Your task to perform on an android device: refresh tabs in the chrome app Image 0: 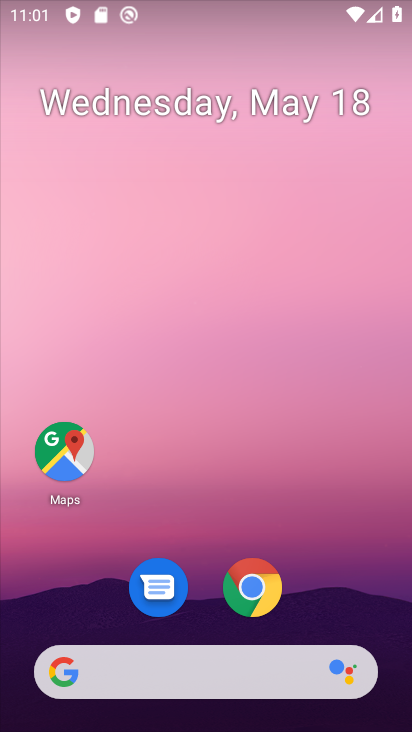
Step 0: click (256, 584)
Your task to perform on an android device: refresh tabs in the chrome app Image 1: 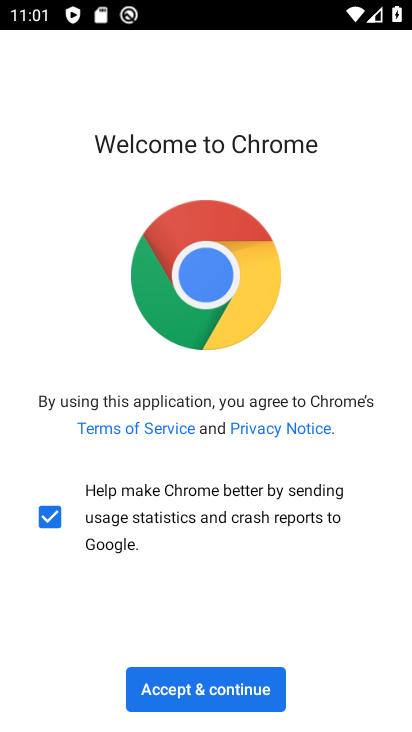
Step 1: click (226, 695)
Your task to perform on an android device: refresh tabs in the chrome app Image 2: 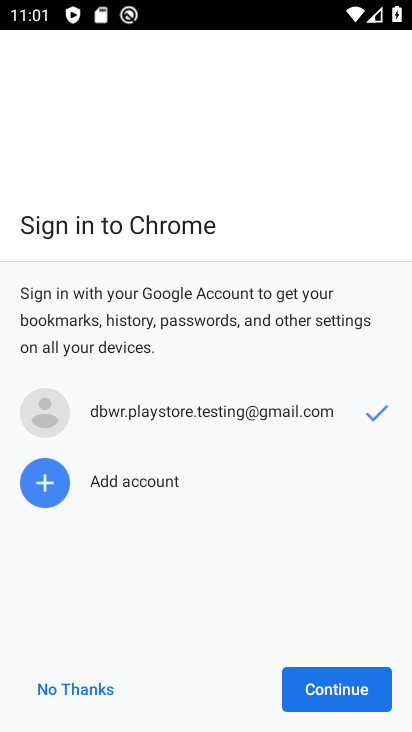
Step 2: click (302, 688)
Your task to perform on an android device: refresh tabs in the chrome app Image 3: 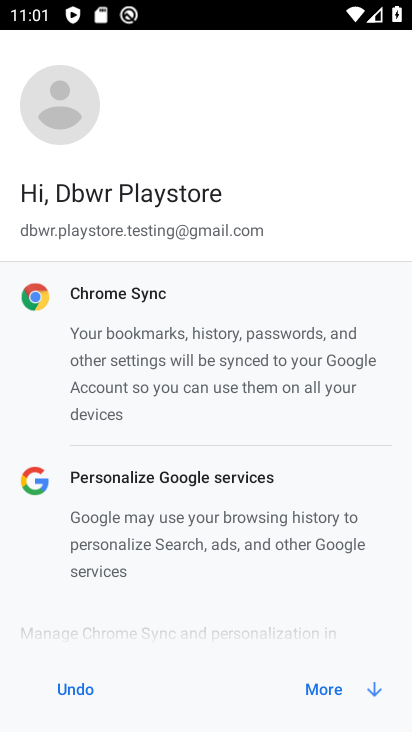
Step 3: click (307, 687)
Your task to perform on an android device: refresh tabs in the chrome app Image 4: 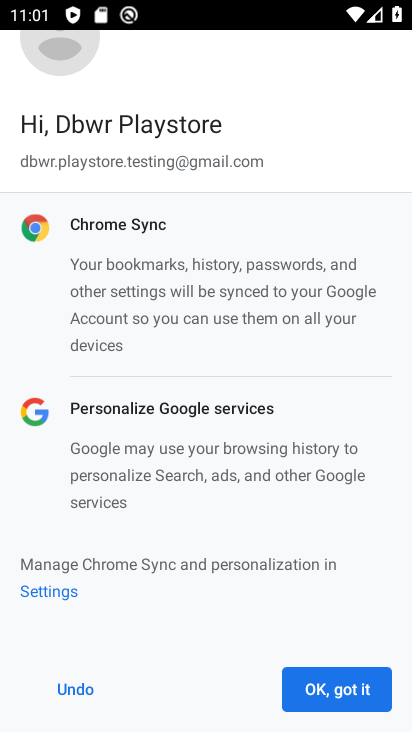
Step 4: click (307, 687)
Your task to perform on an android device: refresh tabs in the chrome app Image 5: 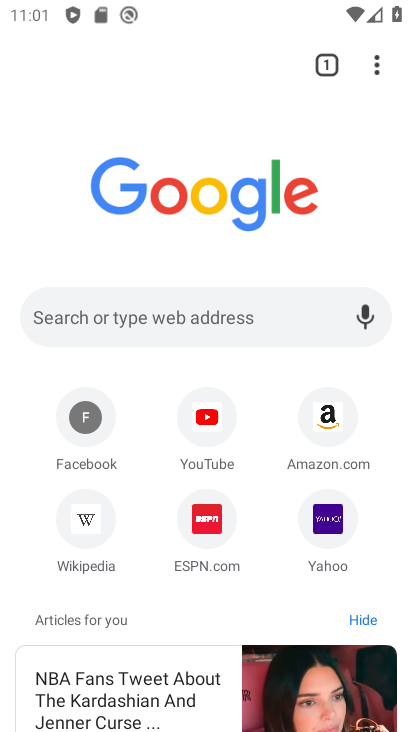
Step 5: click (375, 63)
Your task to perform on an android device: refresh tabs in the chrome app Image 6: 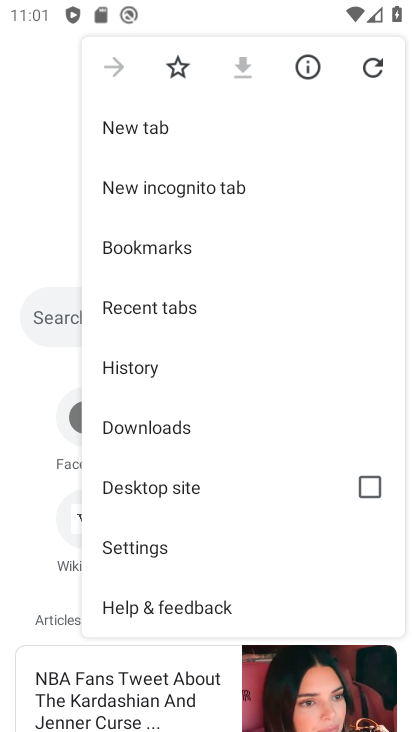
Step 6: click (374, 70)
Your task to perform on an android device: refresh tabs in the chrome app Image 7: 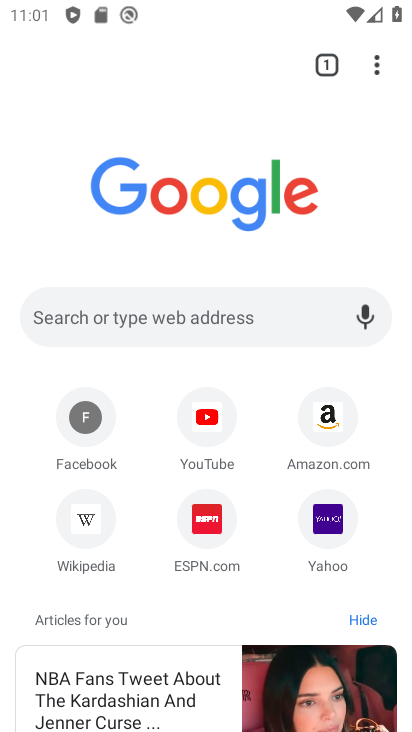
Step 7: task complete